Your task to perform on an android device: Open eBay Image 0: 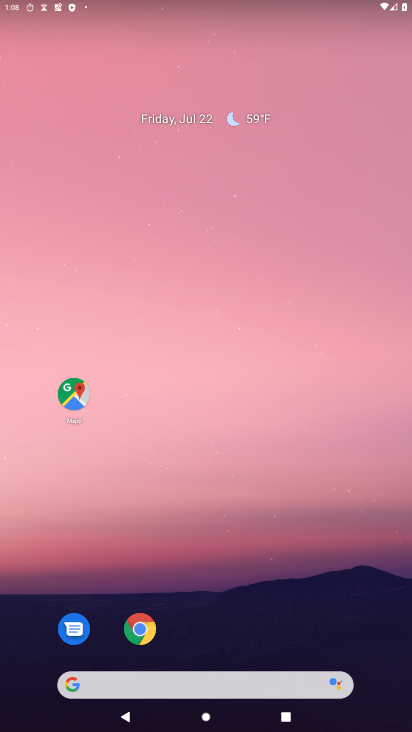
Step 0: drag from (206, 705) to (272, 226)
Your task to perform on an android device: Open eBay Image 1: 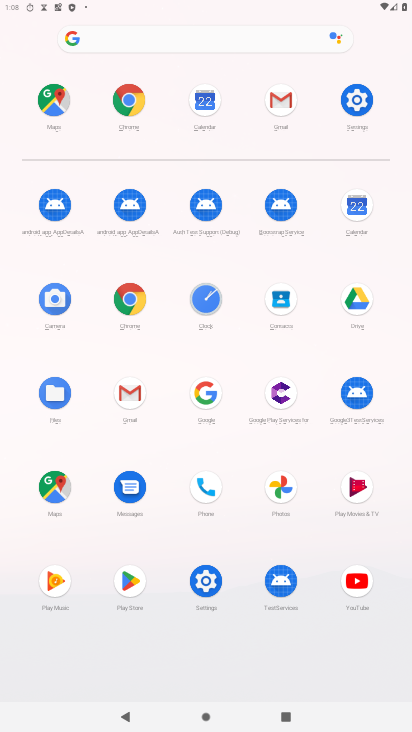
Step 1: click (122, 294)
Your task to perform on an android device: Open eBay Image 2: 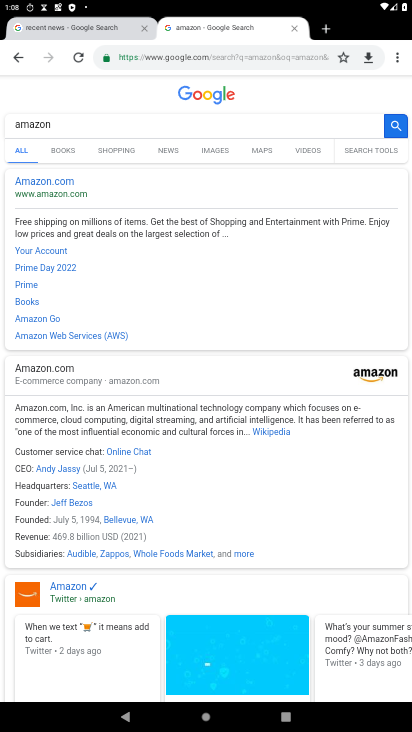
Step 2: drag from (398, 57) to (311, 57)
Your task to perform on an android device: Open eBay Image 3: 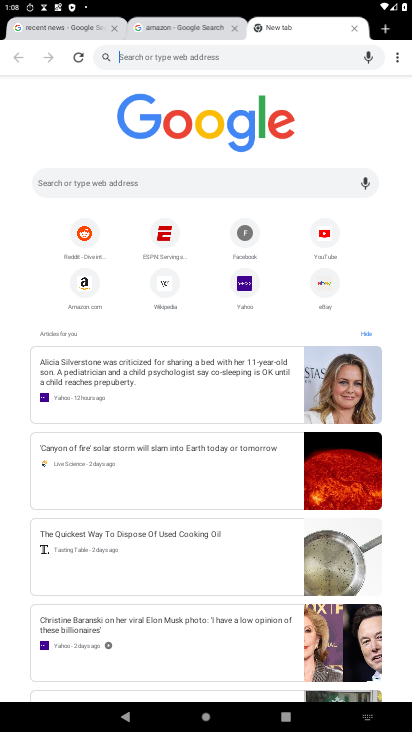
Step 3: click (332, 276)
Your task to perform on an android device: Open eBay Image 4: 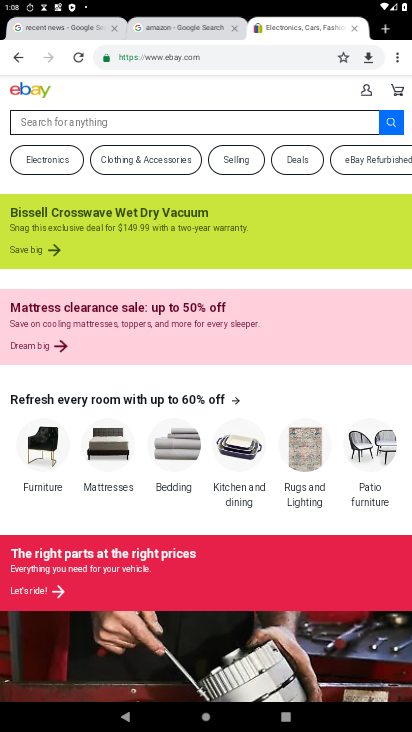
Step 4: task complete